Your task to perform on an android device: empty trash in google photos Image 0: 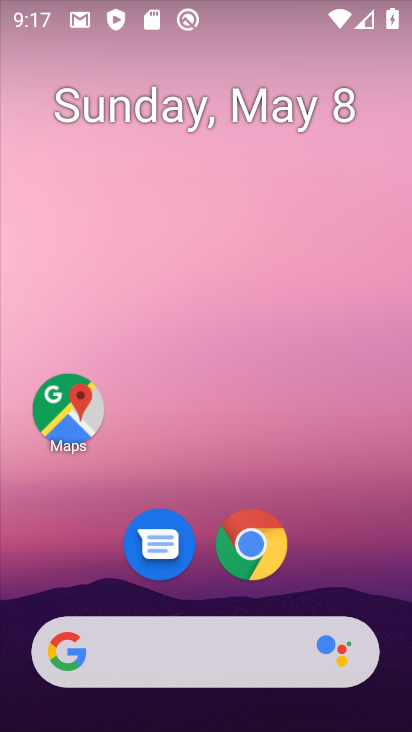
Step 0: drag from (362, 580) to (340, 48)
Your task to perform on an android device: empty trash in google photos Image 1: 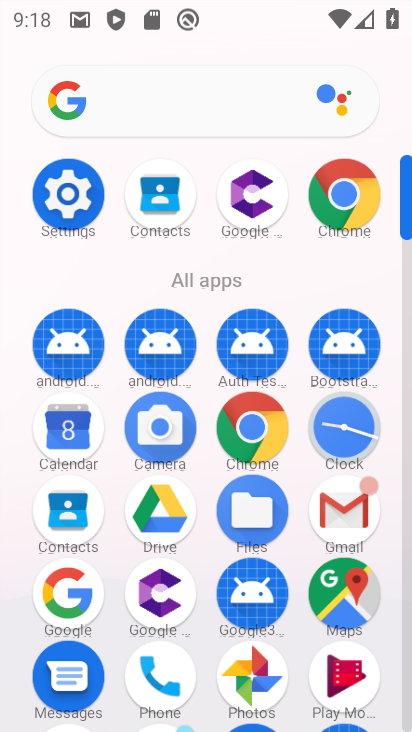
Step 1: click (256, 670)
Your task to perform on an android device: empty trash in google photos Image 2: 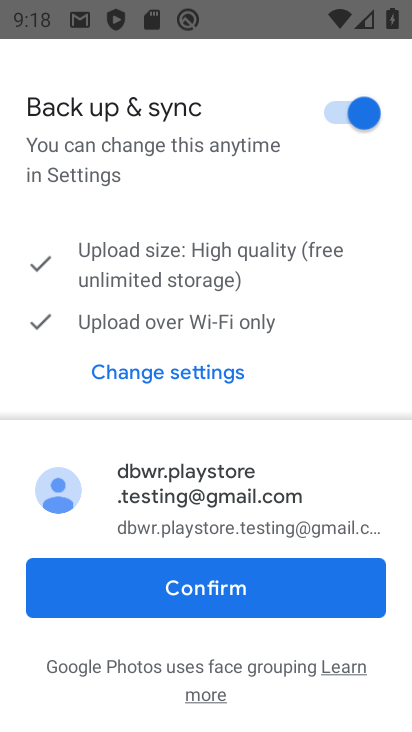
Step 2: click (270, 608)
Your task to perform on an android device: empty trash in google photos Image 3: 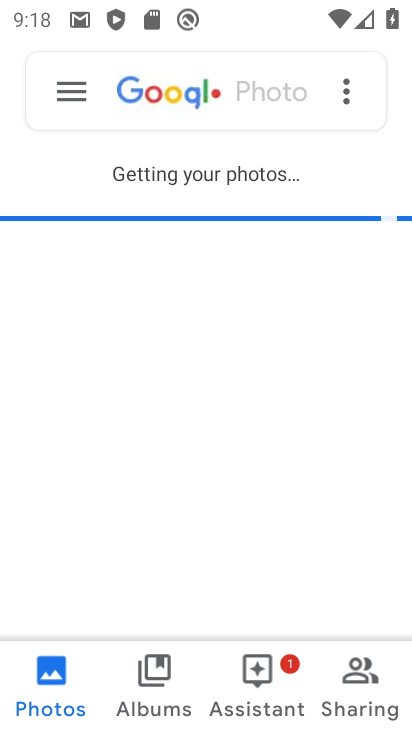
Step 3: click (60, 102)
Your task to perform on an android device: empty trash in google photos Image 4: 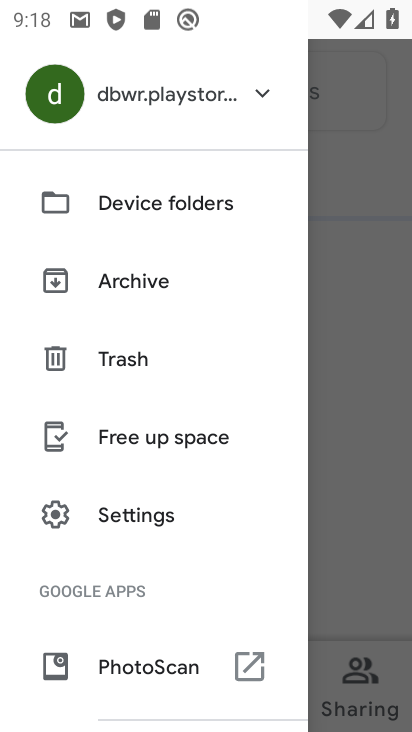
Step 4: click (135, 358)
Your task to perform on an android device: empty trash in google photos Image 5: 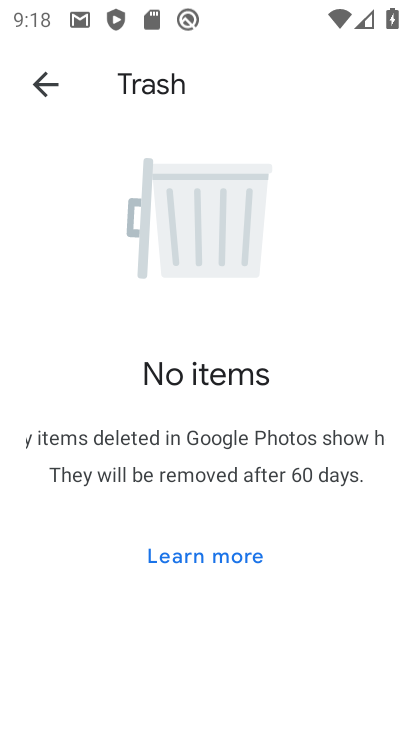
Step 5: task complete